Your task to perform on an android device: Open the calendar and show me this week's events Image 0: 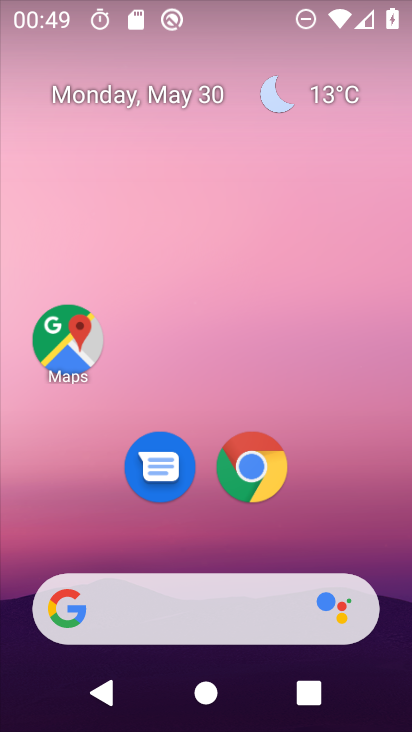
Step 0: drag from (194, 515) to (190, 181)
Your task to perform on an android device: Open the calendar and show me this week's events Image 1: 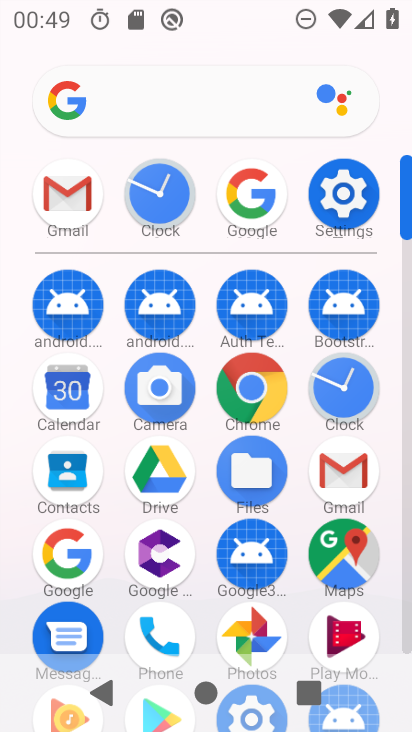
Step 1: click (46, 394)
Your task to perform on an android device: Open the calendar and show me this week's events Image 2: 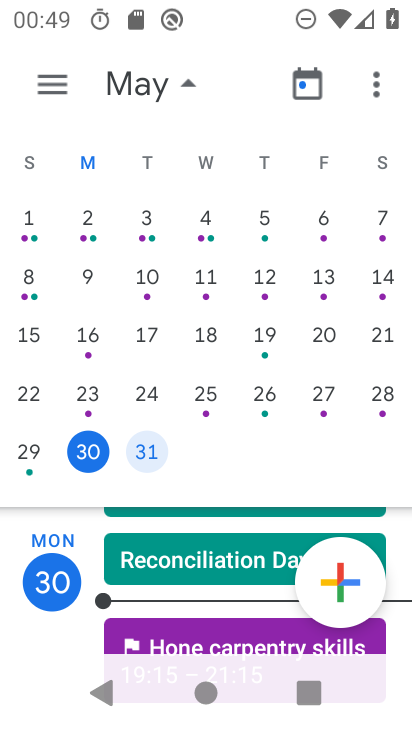
Step 2: drag from (307, 396) to (43, 395)
Your task to perform on an android device: Open the calendar and show me this week's events Image 3: 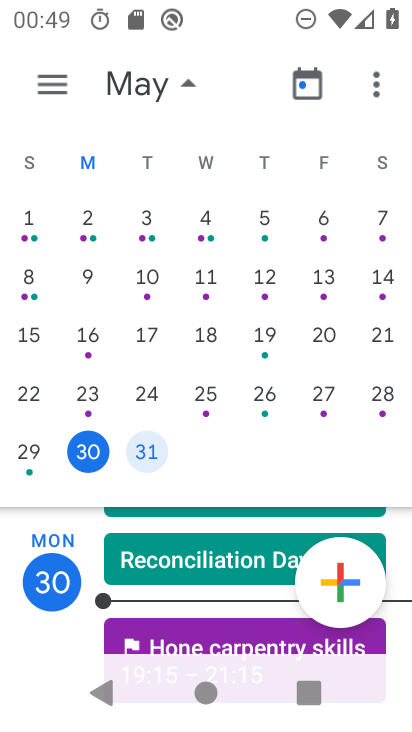
Step 3: drag from (353, 319) to (28, 326)
Your task to perform on an android device: Open the calendar and show me this week's events Image 4: 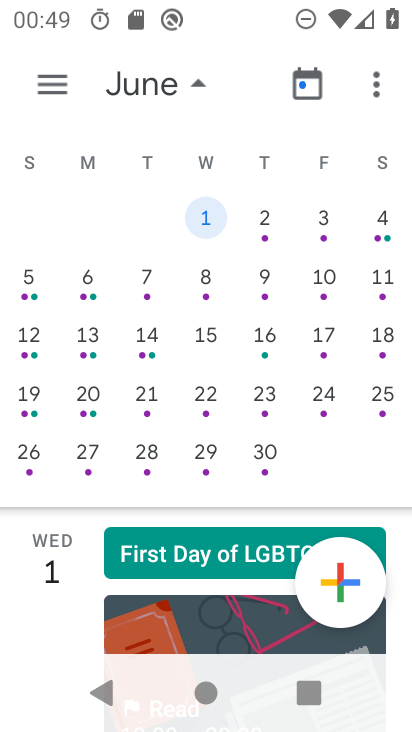
Step 4: click (209, 207)
Your task to perform on an android device: Open the calendar and show me this week's events Image 5: 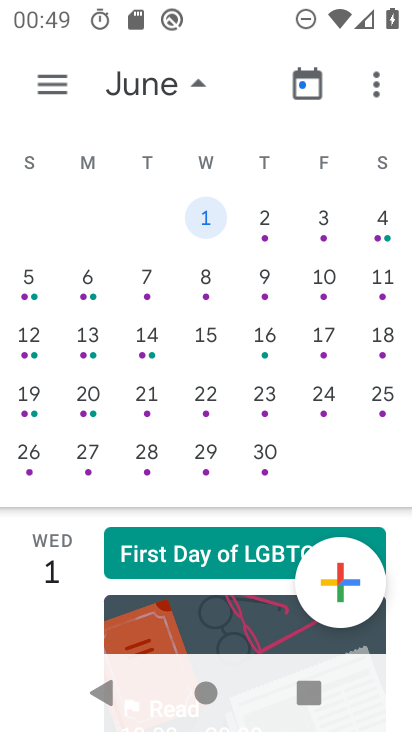
Step 5: click (269, 225)
Your task to perform on an android device: Open the calendar and show me this week's events Image 6: 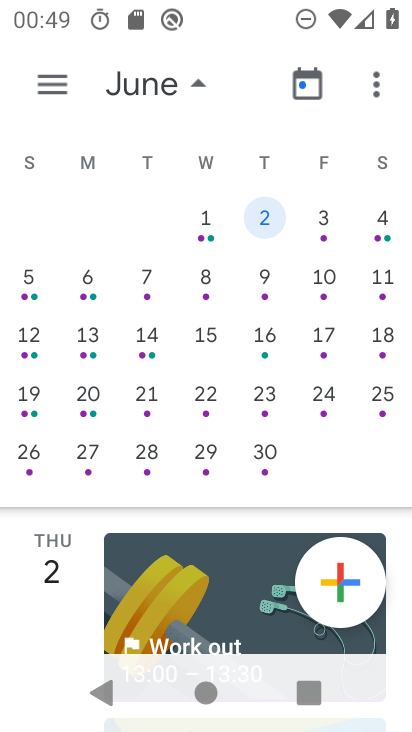
Step 6: task complete